Your task to perform on an android device: turn on bluetooth scan Image 0: 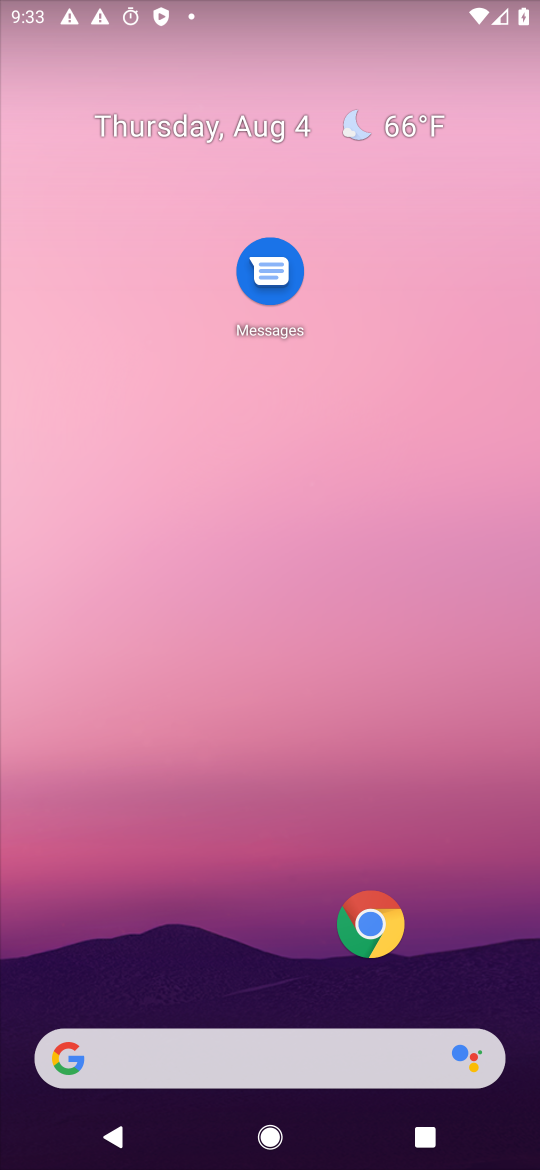
Step 0: drag from (268, 902) to (379, 99)
Your task to perform on an android device: turn on bluetooth scan Image 1: 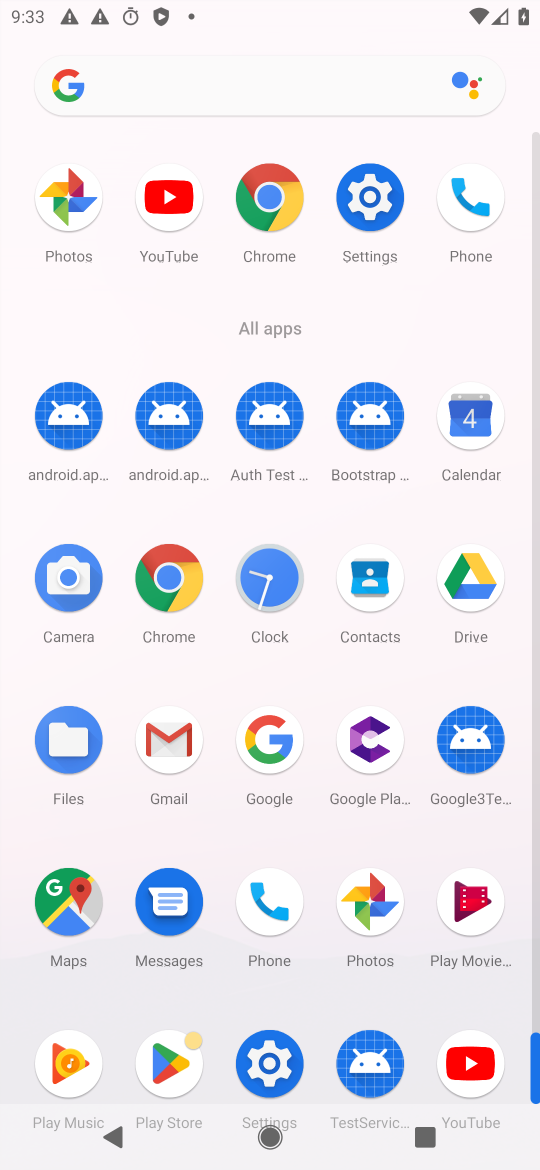
Step 1: click (368, 194)
Your task to perform on an android device: turn on bluetooth scan Image 2: 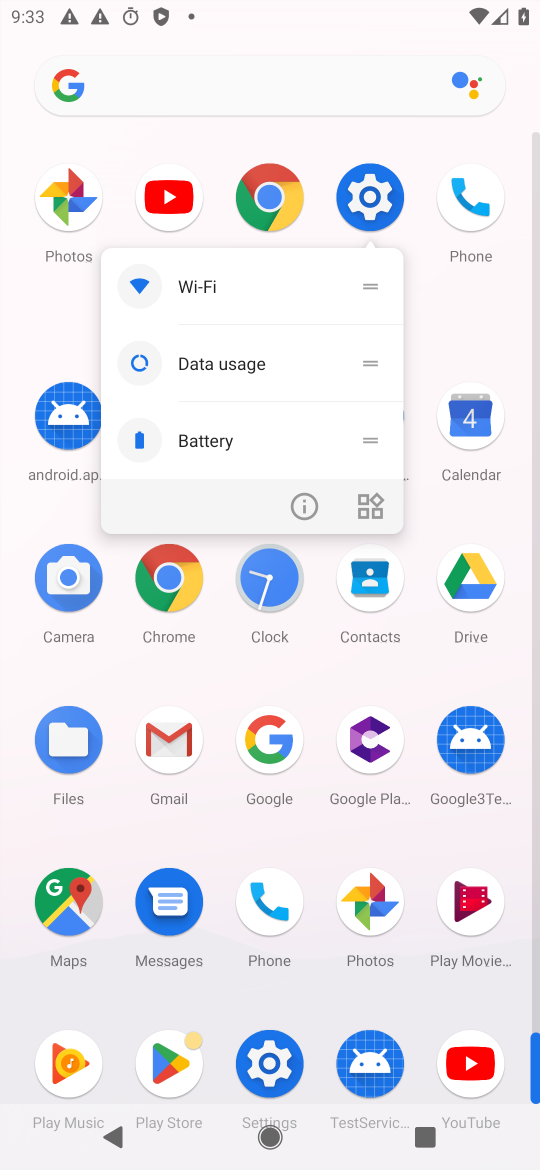
Step 2: click (302, 515)
Your task to perform on an android device: turn on bluetooth scan Image 3: 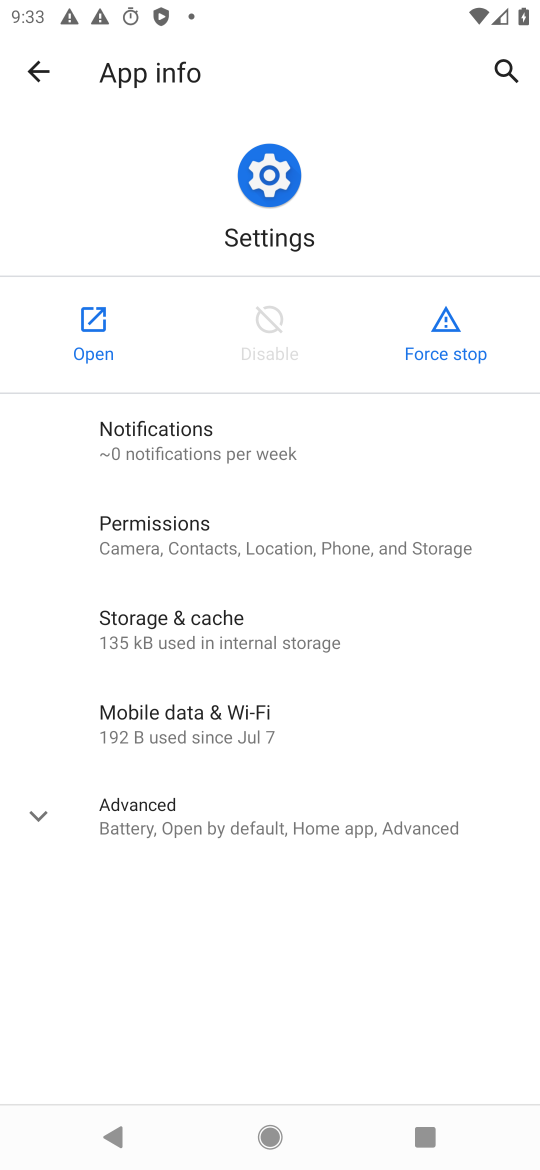
Step 3: click (105, 318)
Your task to perform on an android device: turn on bluetooth scan Image 4: 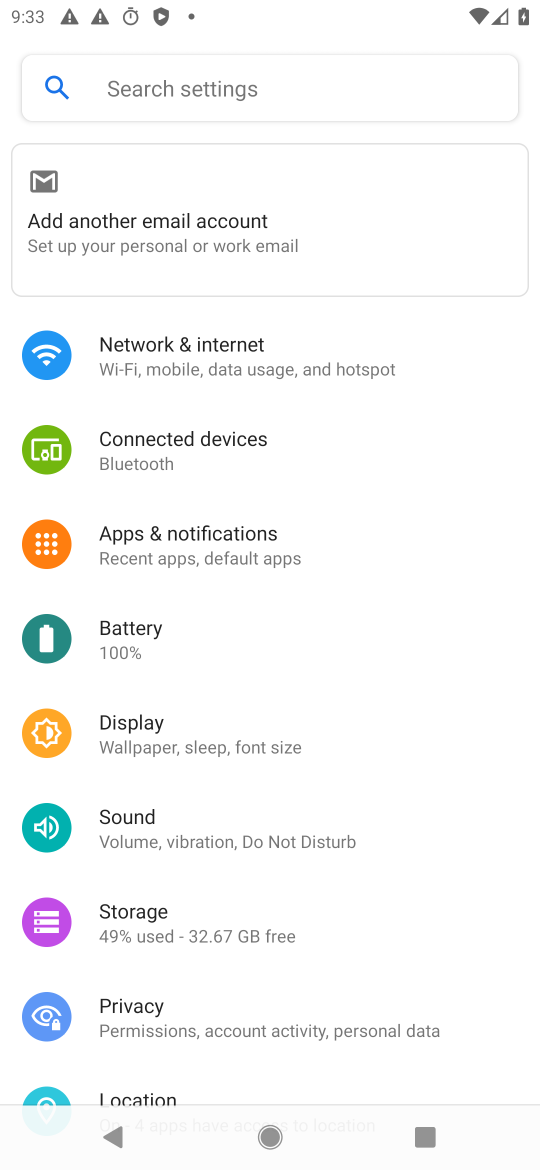
Step 4: drag from (254, 652) to (288, 297)
Your task to perform on an android device: turn on bluetooth scan Image 5: 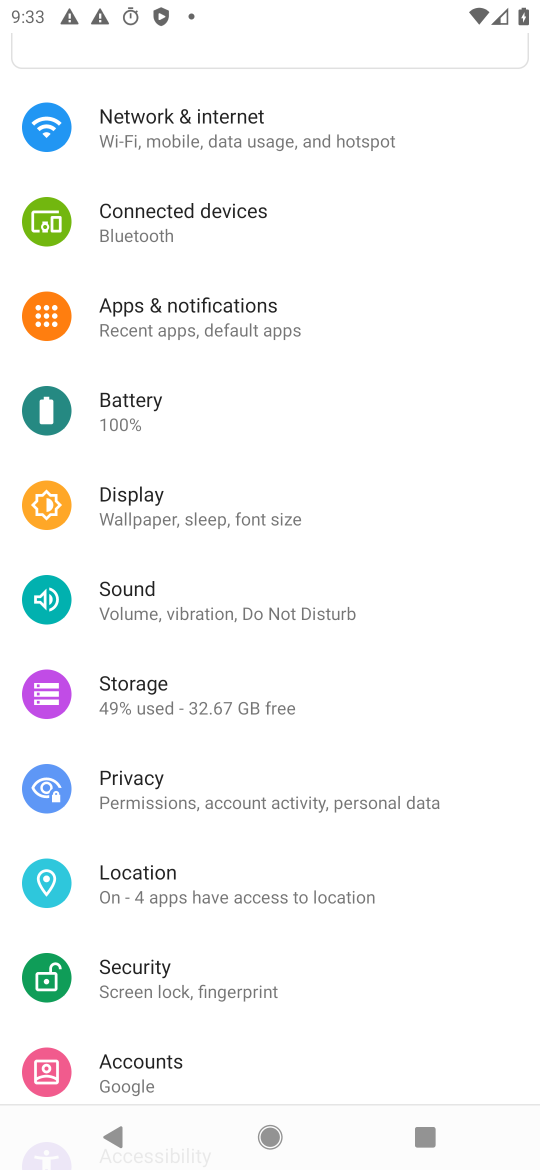
Step 5: click (158, 899)
Your task to perform on an android device: turn on bluetooth scan Image 6: 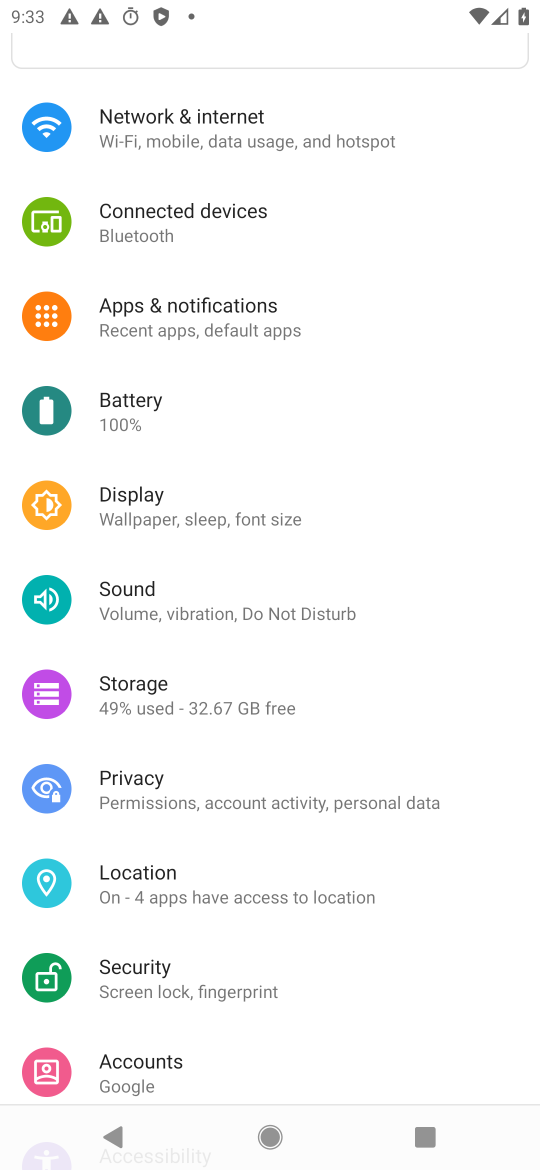
Step 6: drag from (168, 888) to (191, 351)
Your task to perform on an android device: turn on bluetooth scan Image 7: 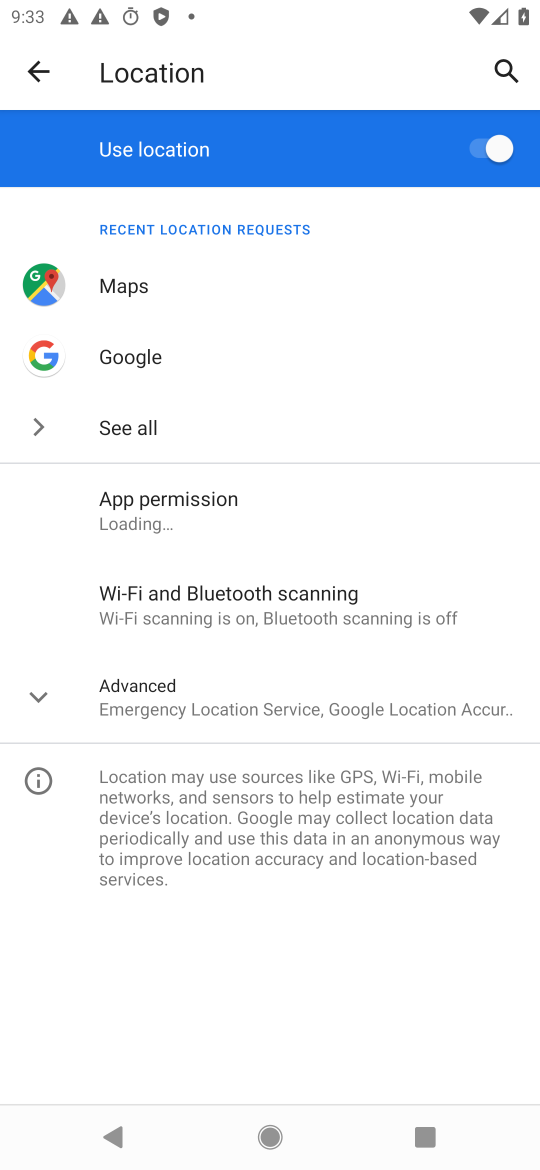
Step 7: click (184, 725)
Your task to perform on an android device: turn on bluetooth scan Image 8: 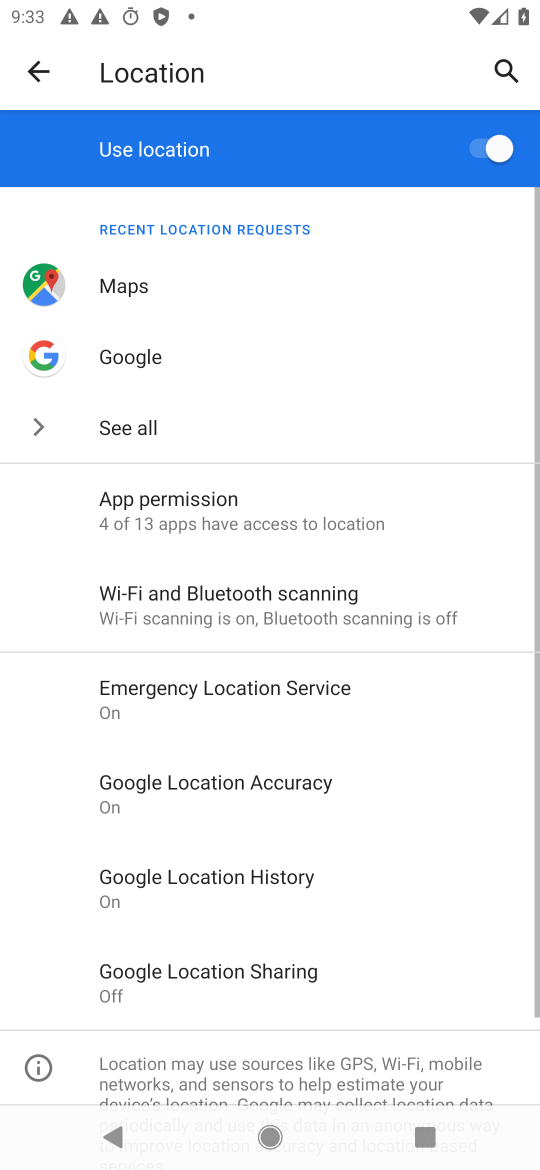
Step 8: click (312, 591)
Your task to perform on an android device: turn on bluetooth scan Image 9: 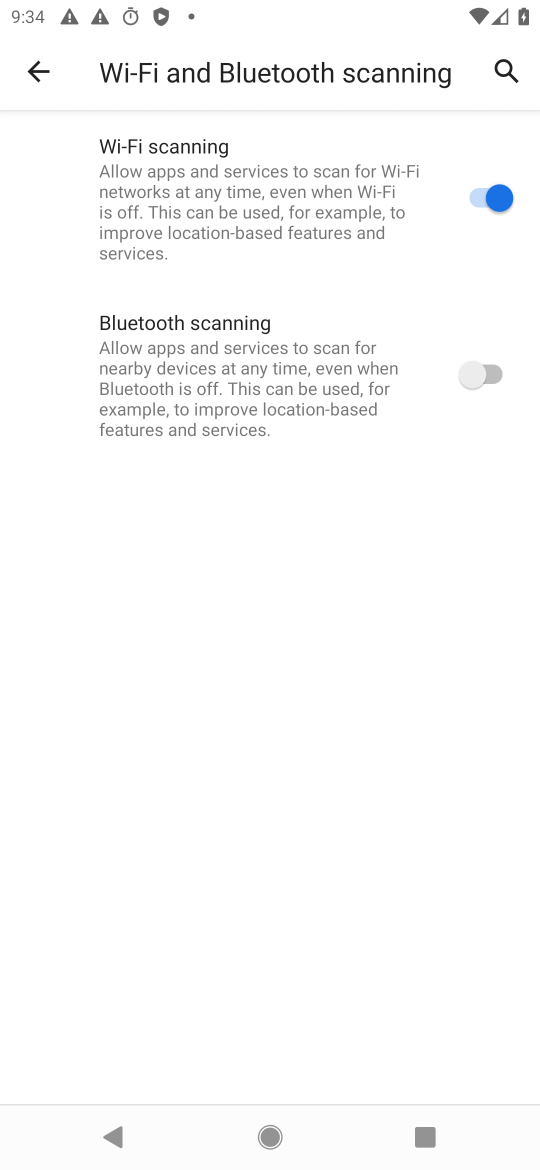
Step 9: click (410, 383)
Your task to perform on an android device: turn on bluetooth scan Image 10: 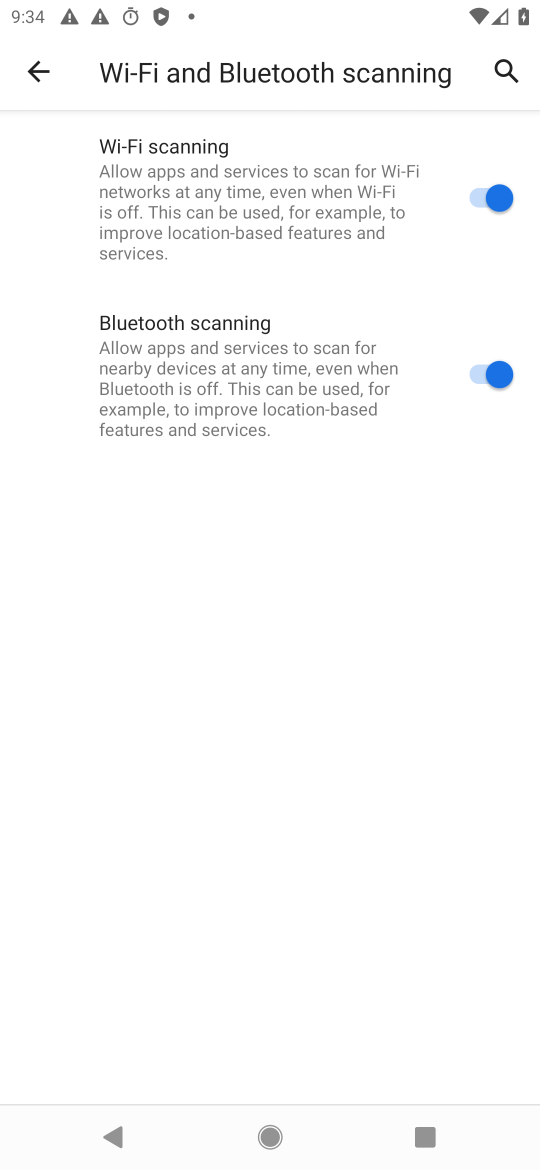
Step 10: task complete